Your task to perform on an android device: Open my contact list Image 0: 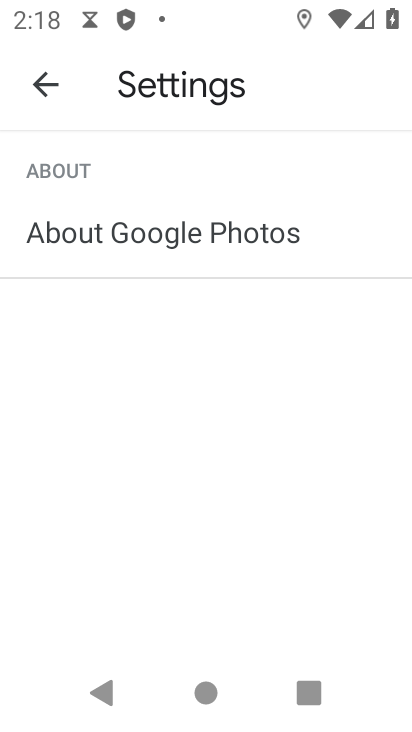
Step 0: press back button
Your task to perform on an android device: Open my contact list Image 1: 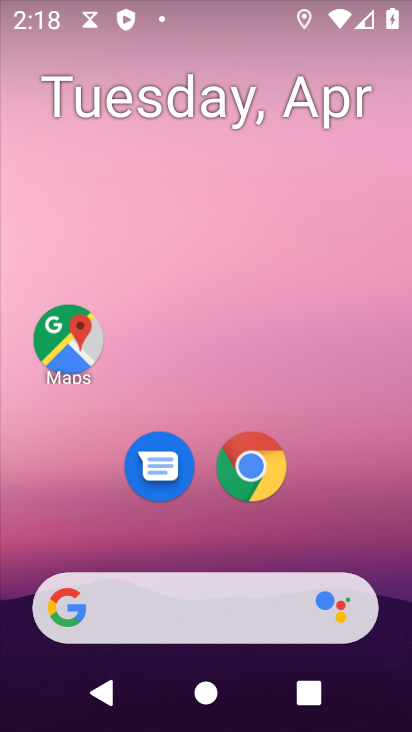
Step 1: drag from (409, 644) to (377, 85)
Your task to perform on an android device: Open my contact list Image 2: 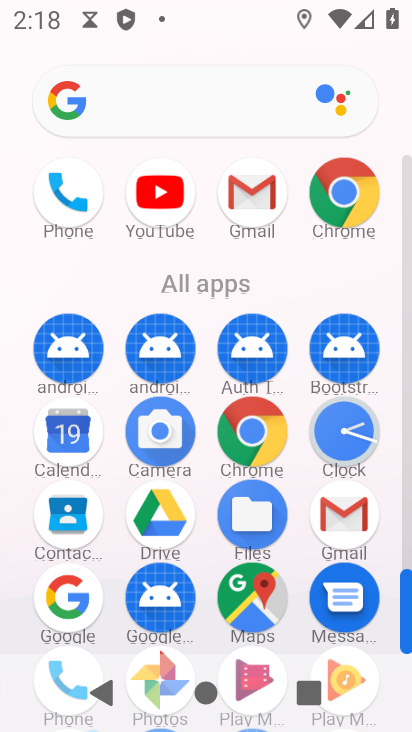
Step 2: click (62, 197)
Your task to perform on an android device: Open my contact list Image 3: 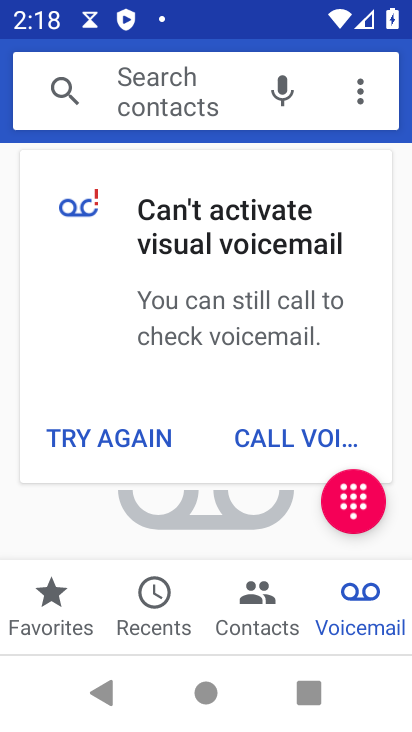
Step 3: click (254, 613)
Your task to perform on an android device: Open my contact list Image 4: 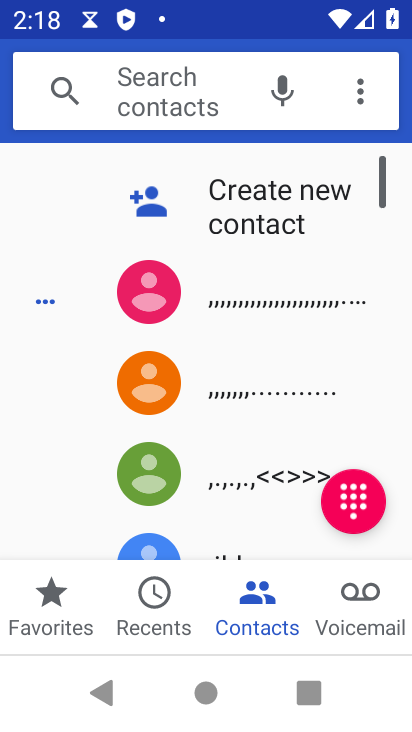
Step 4: task complete